Your task to perform on an android device: Go to accessibility settings Image 0: 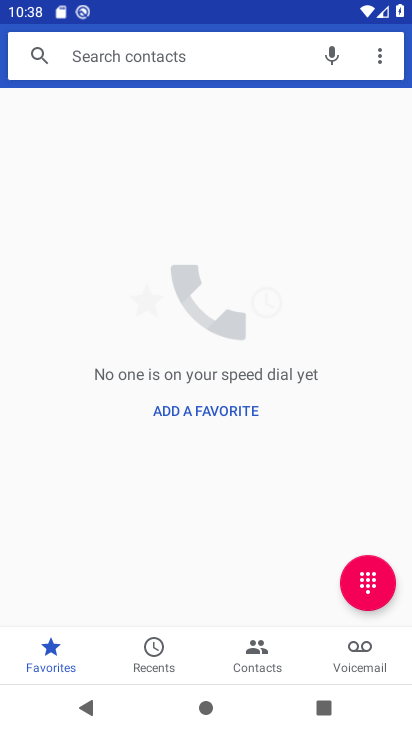
Step 0: press home button
Your task to perform on an android device: Go to accessibility settings Image 1: 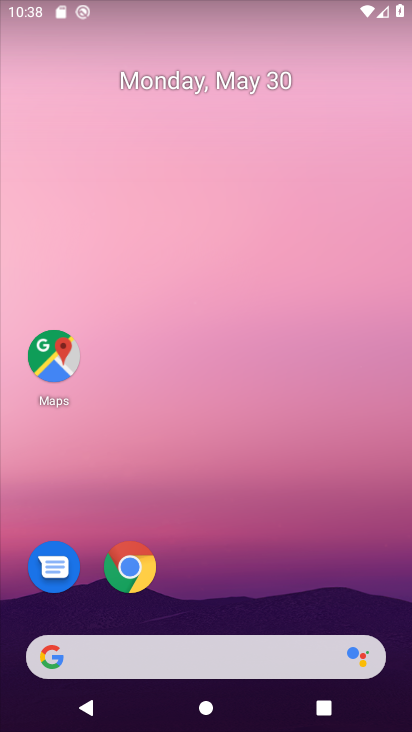
Step 1: drag from (273, 626) to (338, 255)
Your task to perform on an android device: Go to accessibility settings Image 2: 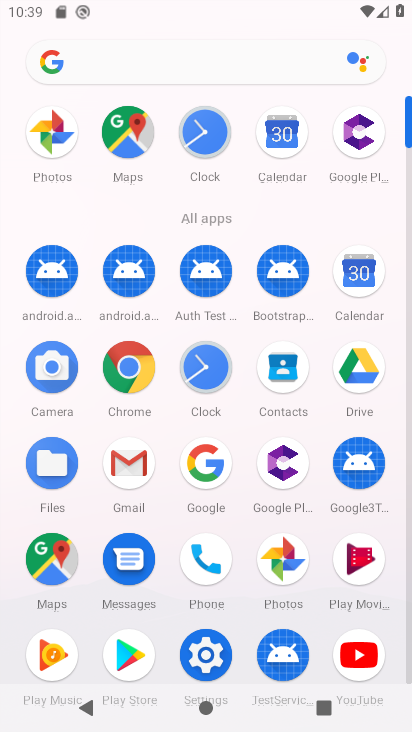
Step 2: click (203, 654)
Your task to perform on an android device: Go to accessibility settings Image 3: 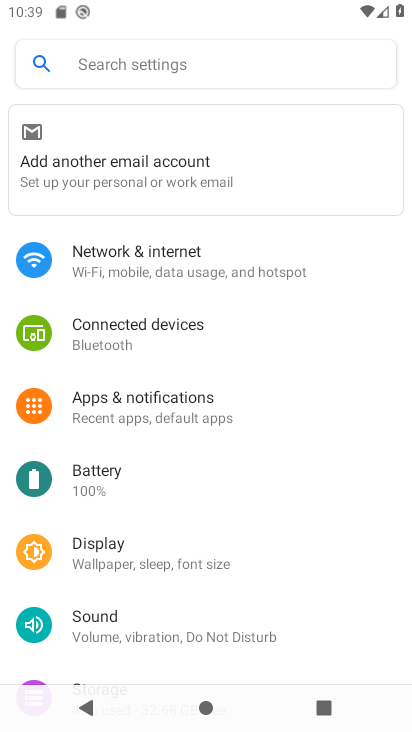
Step 3: drag from (121, 651) to (151, 221)
Your task to perform on an android device: Go to accessibility settings Image 4: 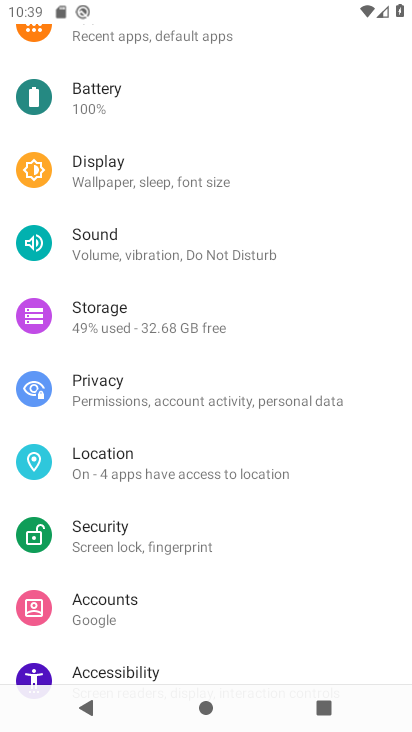
Step 4: drag from (176, 663) to (246, 267)
Your task to perform on an android device: Go to accessibility settings Image 5: 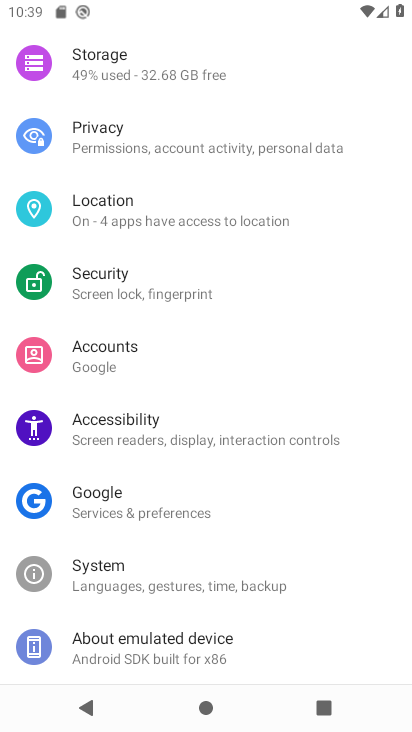
Step 5: click (152, 440)
Your task to perform on an android device: Go to accessibility settings Image 6: 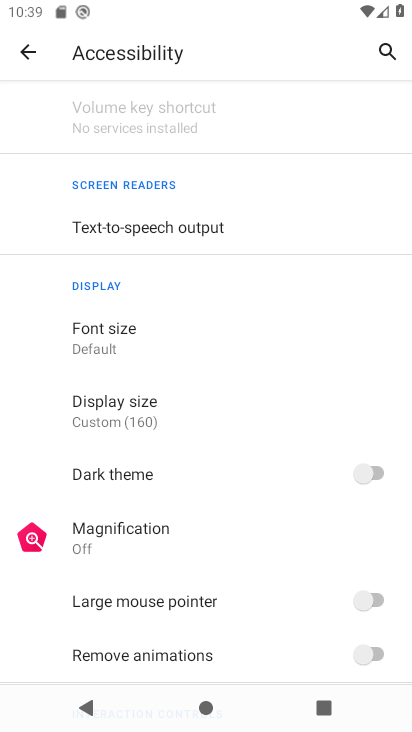
Step 6: task complete